Your task to perform on an android device: allow cookies in the chrome app Image 0: 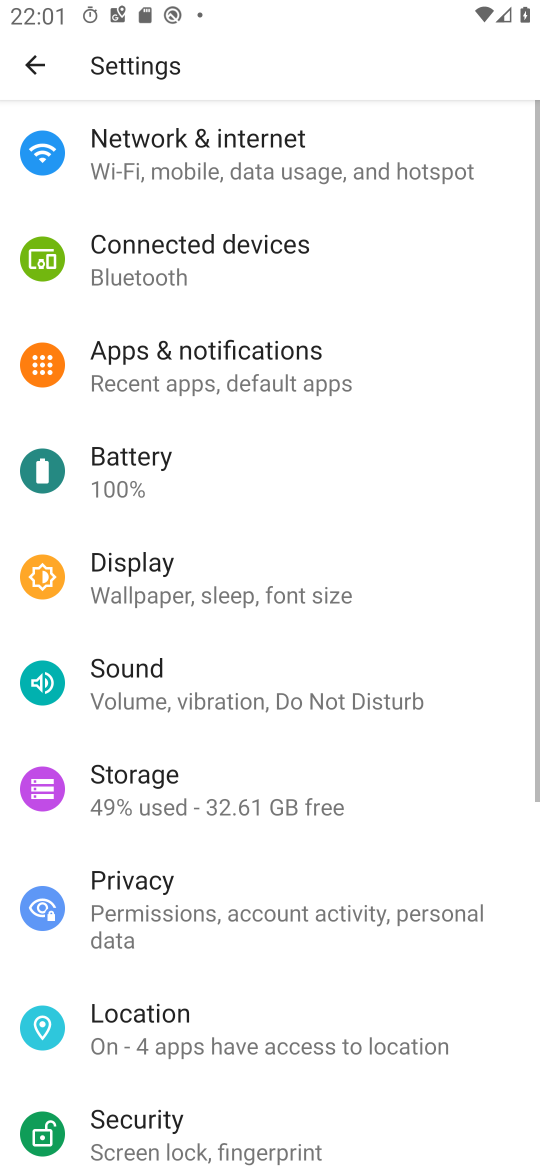
Step 0: press home button
Your task to perform on an android device: allow cookies in the chrome app Image 1: 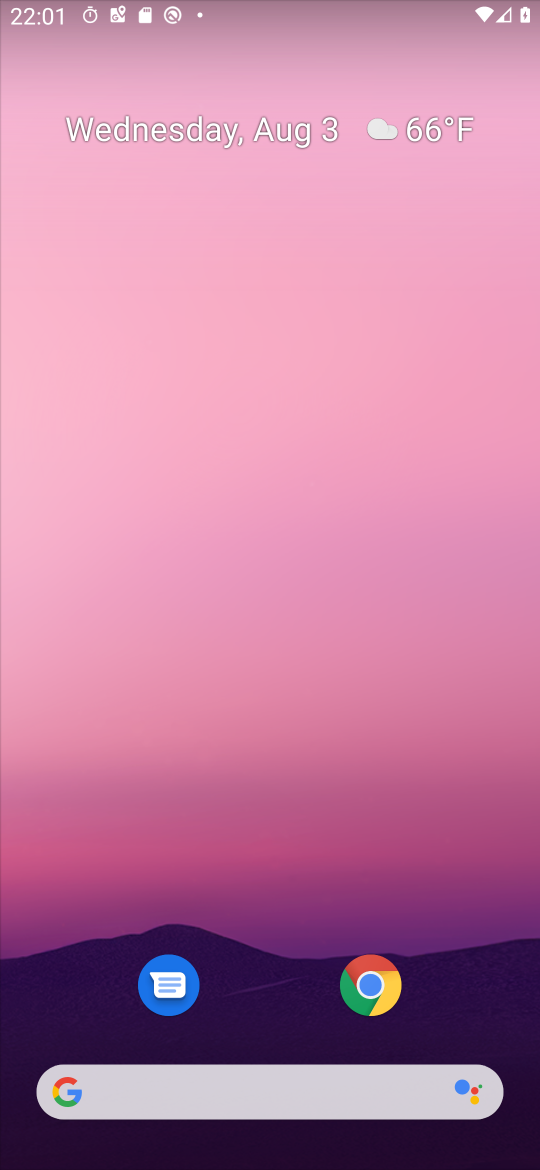
Step 1: click (373, 977)
Your task to perform on an android device: allow cookies in the chrome app Image 2: 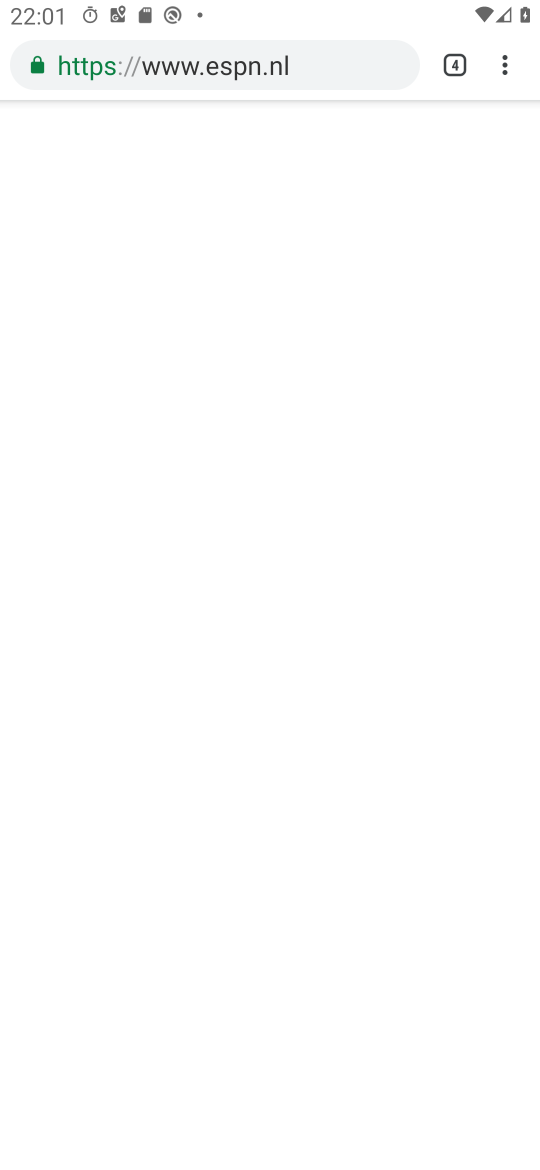
Step 2: click (510, 57)
Your task to perform on an android device: allow cookies in the chrome app Image 3: 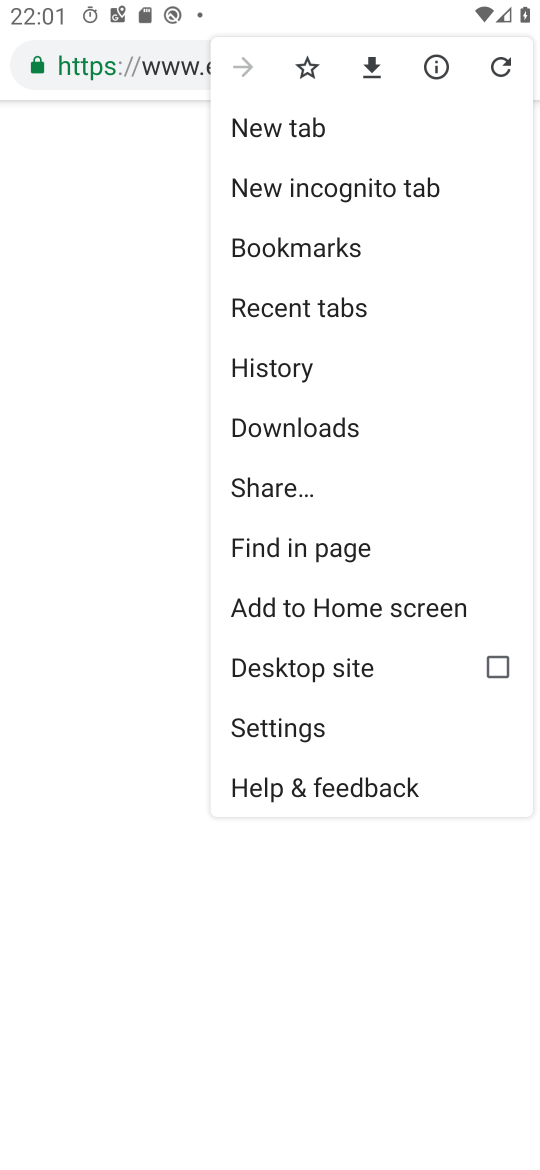
Step 3: click (317, 715)
Your task to perform on an android device: allow cookies in the chrome app Image 4: 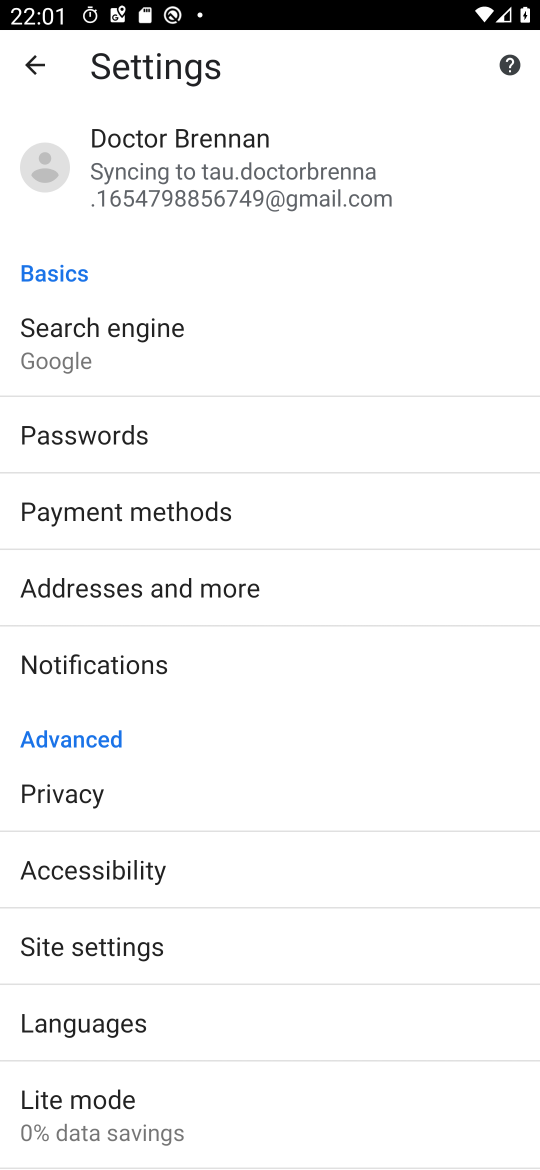
Step 4: click (132, 965)
Your task to perform on an android device: allow cookies in the chrome app Image 5: 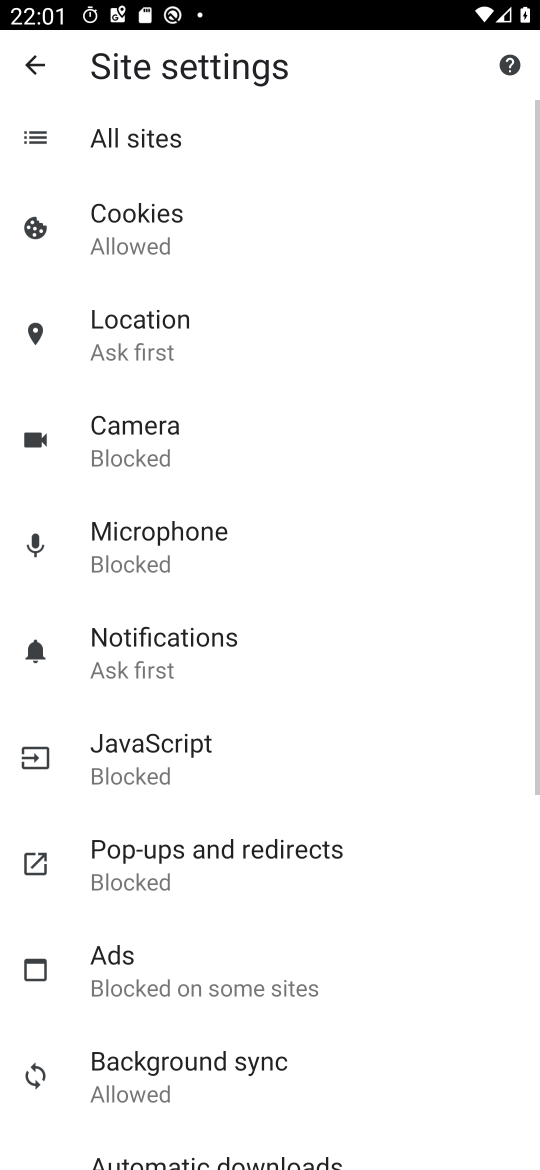
Step 5: click (136, 249)
Your task to perform on an android device: allow cookies in the chrome app Image 6: 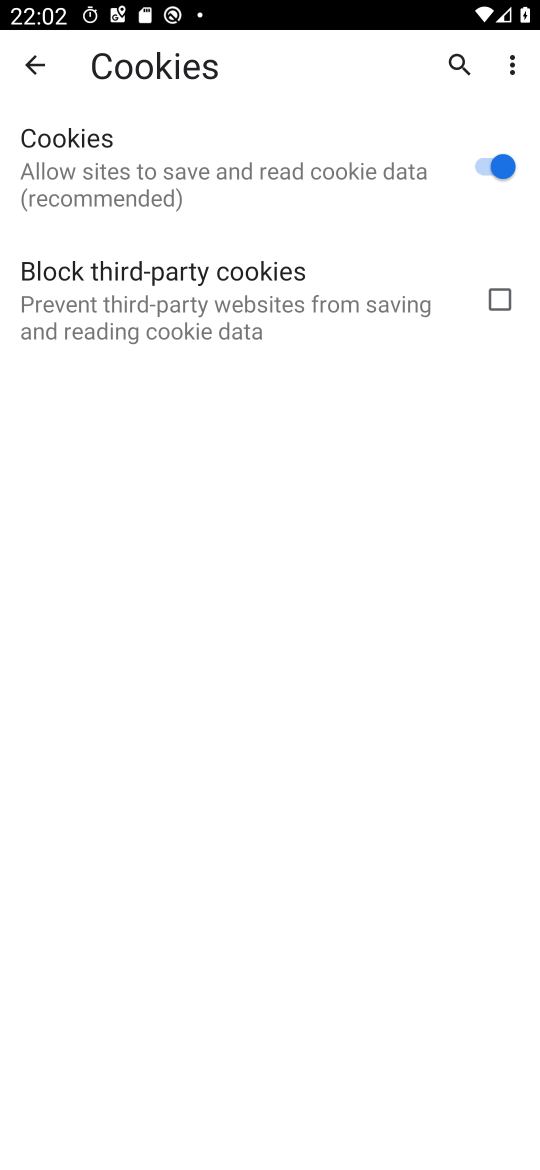
Step 6: task complete